Your task to perform on an android device: Go to network settings Image 0: 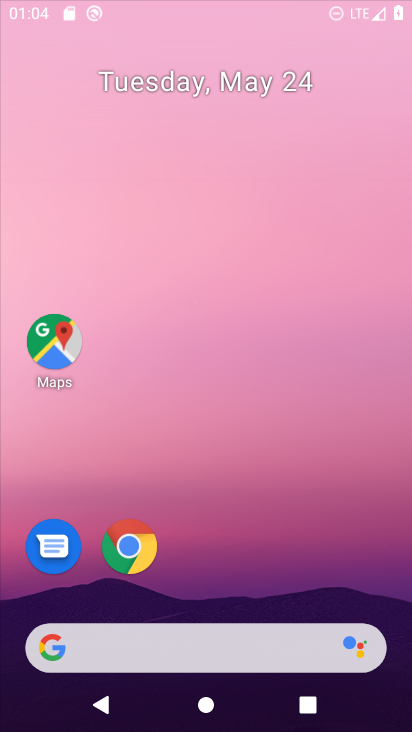
Step 0: drag from (291, 541) to (305, 12)
Your task to perform on an android device: Go to network settings Image 1: 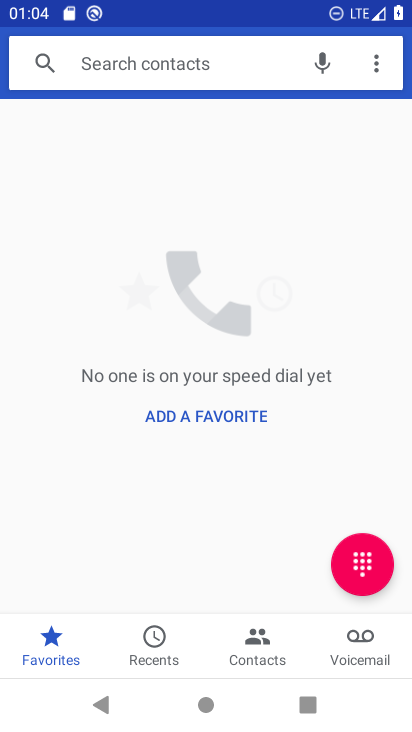
Step 1: press home button
Your task to perform on an android device: Go to network settings Image 2: 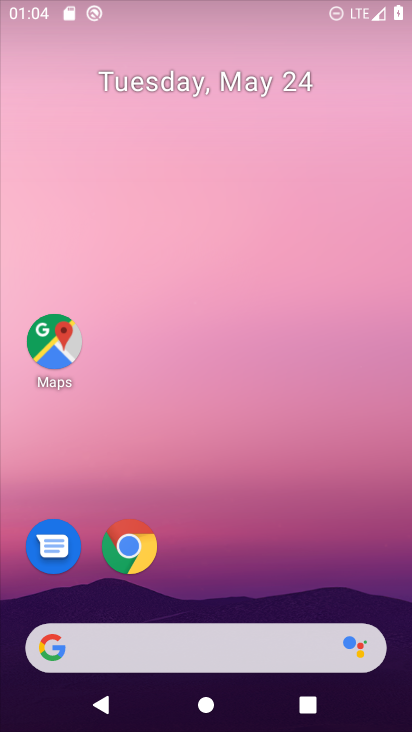
Step 2: drag from (248, 683) to (249, 24)
Your task to perform on an android device: Go to network settings Image 3: 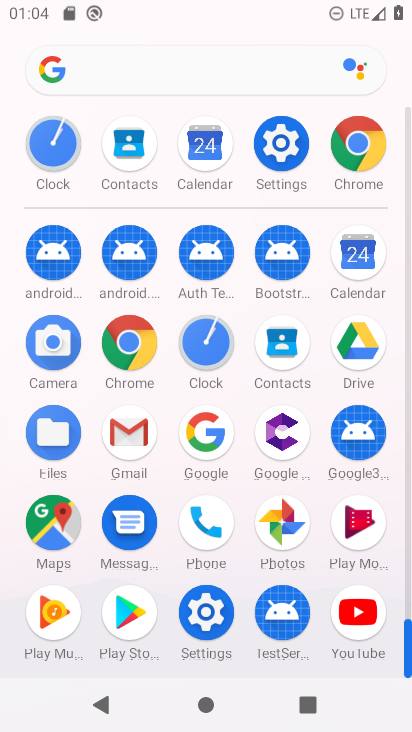
Step 3: click (277, 151)
Your task to perform on an android device: Go to network settings Image 4: 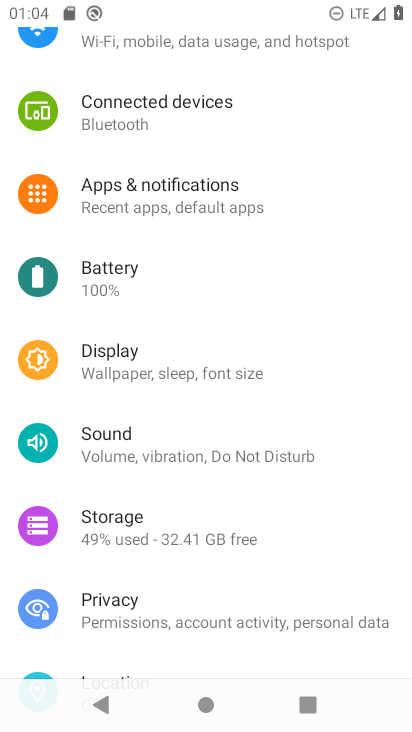
Step 4: drag from (277, 151) to (282, 638)
Your task to perform on an android device: Go to network settings Image 5: 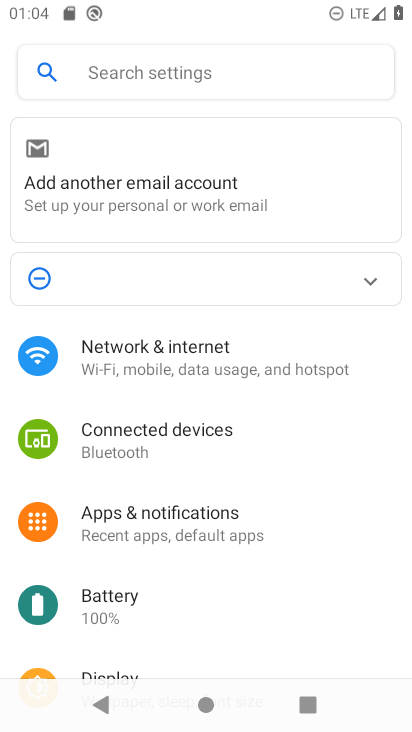
Step 5: click (189, 361)
Your task to perform on an android device: Go to network settings Image 6: 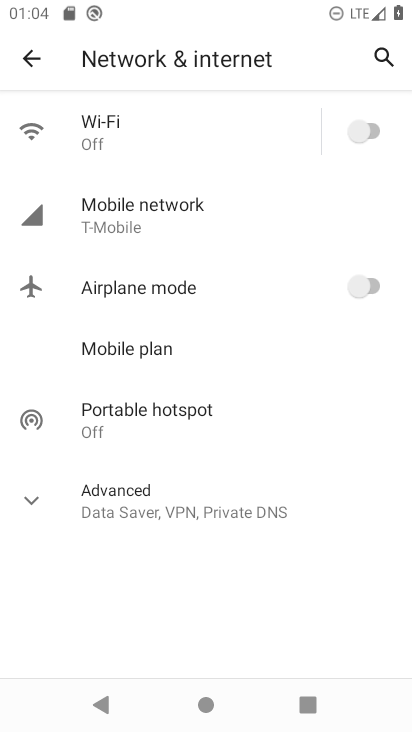
Step 6: task complete